Your task to perform on an android device: Open calendar and show me the third week of next month Image 0: 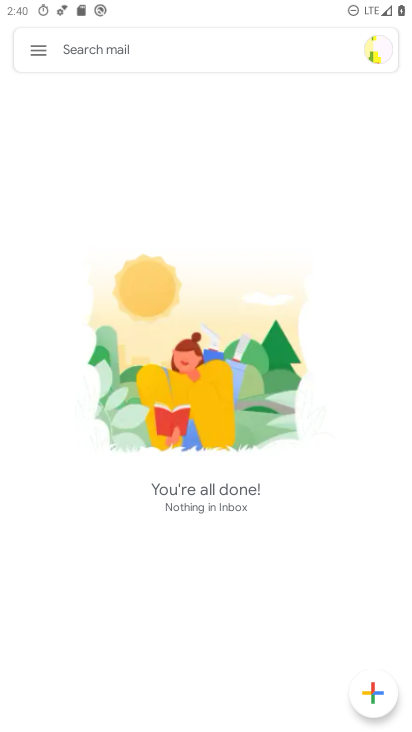
Step 0: click (275, 722)
Your task to perform on an android device: Open calendar and show me the third week of next month Image 1: 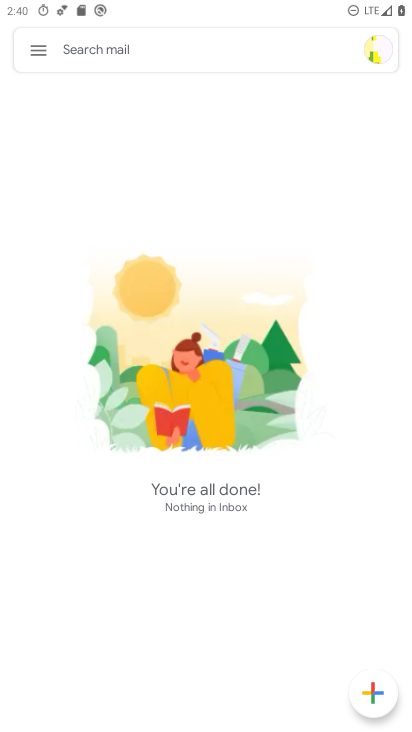
Step 1: drag from (214, 548) to (253, 296)
Your task to perform on an android device: Open calendar and show me the third week of next month Image 2: 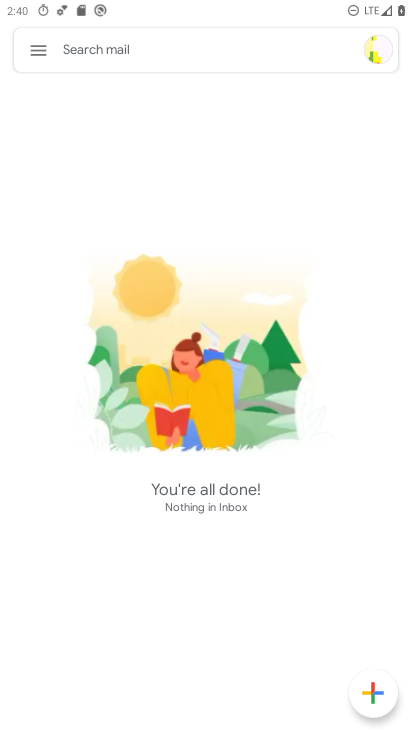
Step 2: press home button
Your task to perform on an android device: Open calendar and show me the third week of next month Image 3: 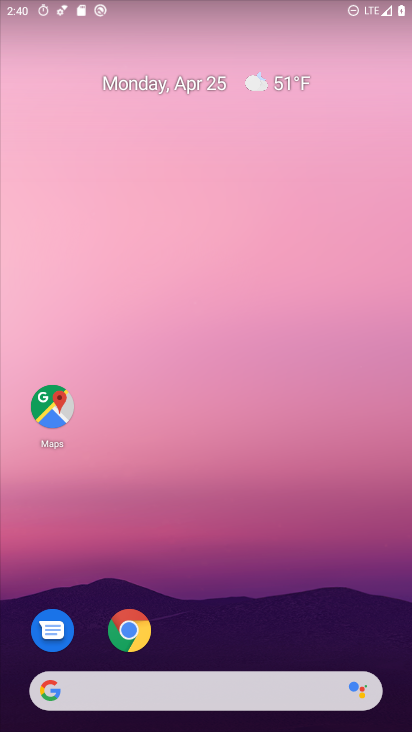
Step 3: drag from (233, 193) to (233, 50)
Your task to perform on an android device: Open calendar and show me the third week of next month Image 4: 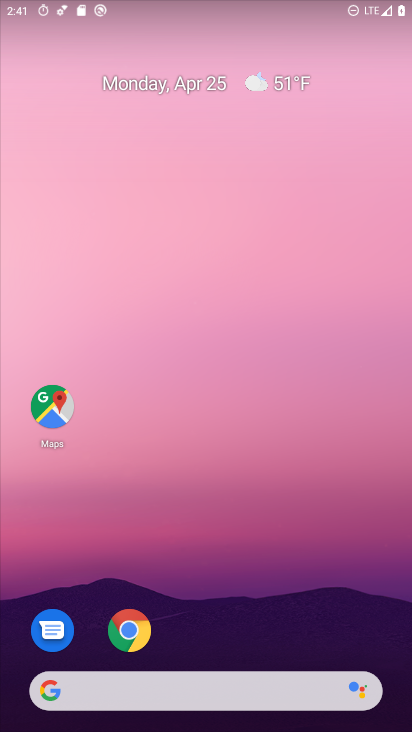
Step 4: drag from (218, 636) to (163, 717)
Your task to perform on an android device: Open calendar and show me the third week of next month Image 5: 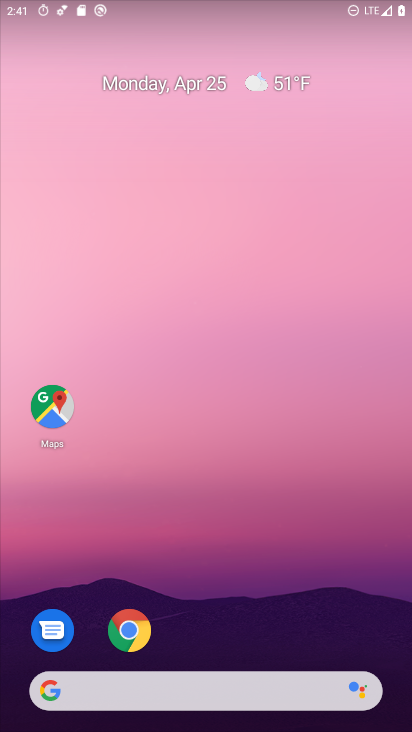
Step 5: drag from (196, 665) to (149, 3)
Your task to perform on an android device: Open calendar and show me the third week of next month Image 6: 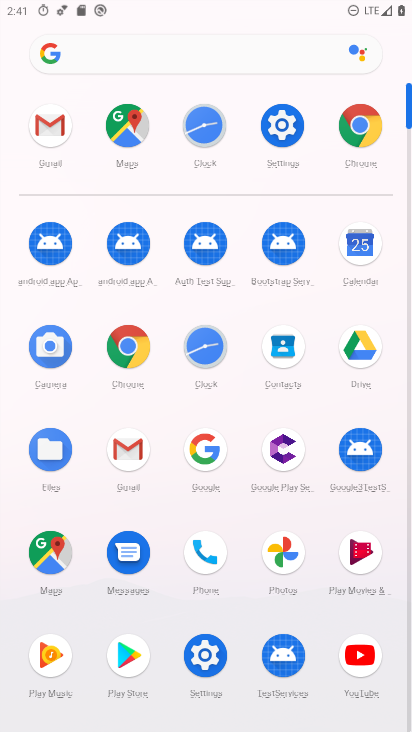
Step 6: click (188, 653)
Your task to perform on an android device: Open calendar and show me the third week of next month Image 7: 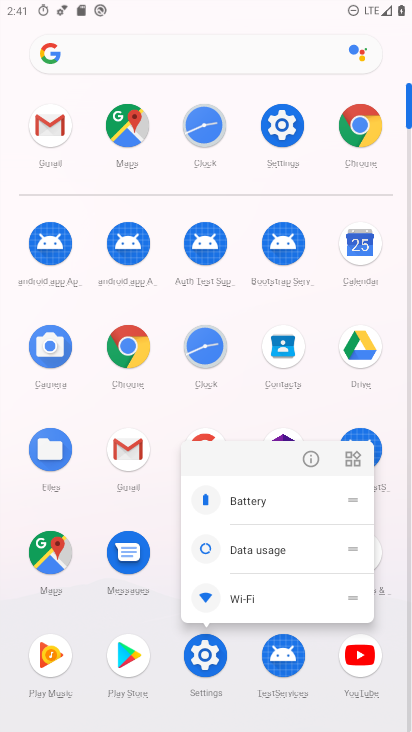
Step 7: click (358, 246)
Your task to perform on an android device: Open calendar and show me the third week of next month Image 8: 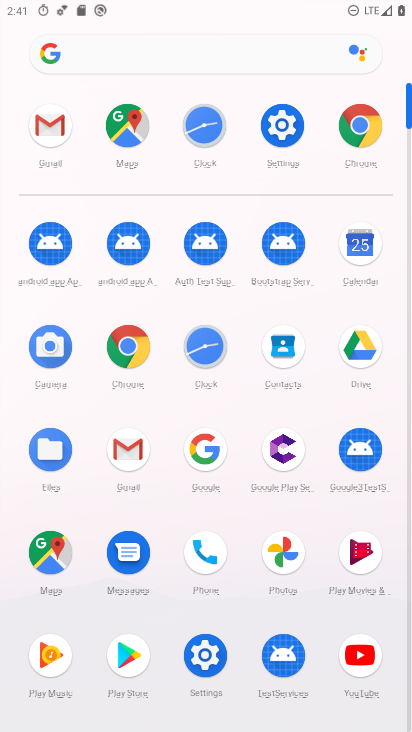
Step 8: click (368, 247)
Your task to perform on an android device: Open calendar and show me the third week of next month Image 9: 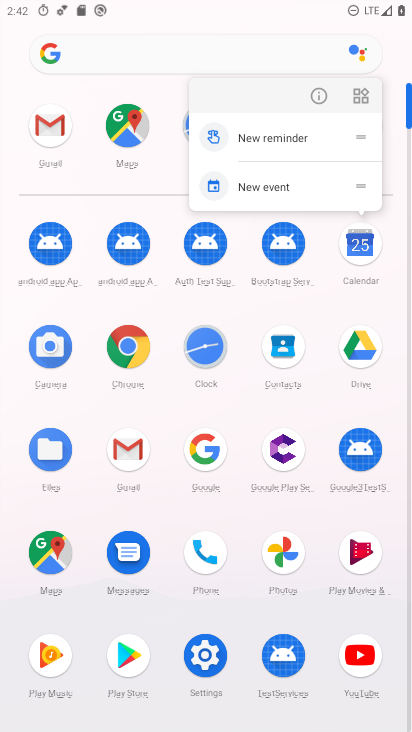
Step 9: click (315, 90)
Your task to perform on an android device: Open calendar and show me the third week of next month Image 10: 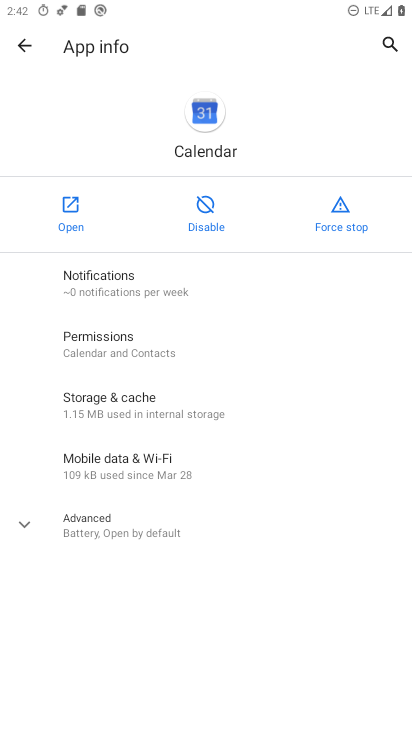
Step 10: click (66, 208)
Your task to perform on an android device: Open calendar and show me the third week of next month Image 11: 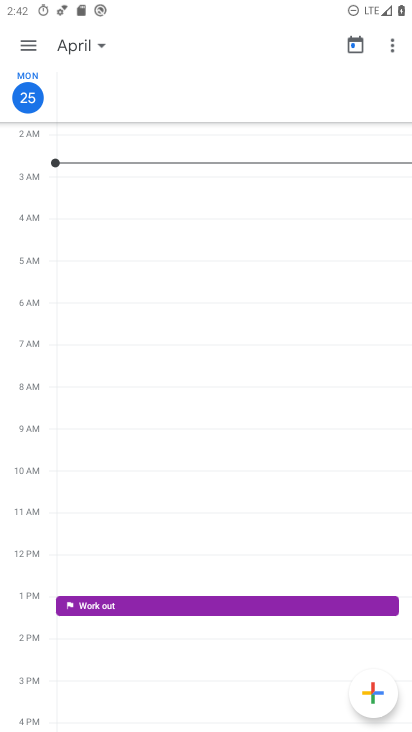
Step 11: click (94, 49)
Your task to perform on an android device: Open calendar and show me the third week of next month Image 12: 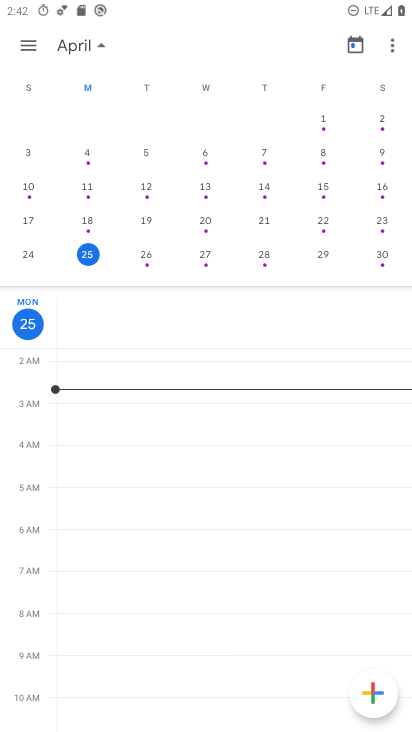
Step 12: drag from (352, 218) to (1, 231)
Your task to perform on an android device: Open calendar and show me the third week of next month Image 13: 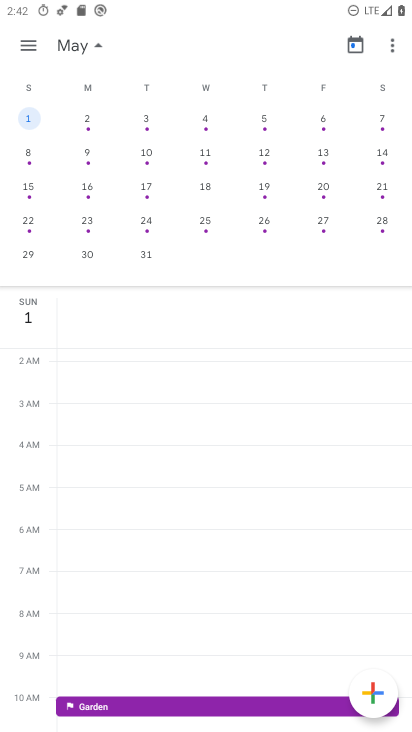
Step 13: click (260, 122)
Your task to perform on an android device: Open calendar and show me the third week of next month Image 14: 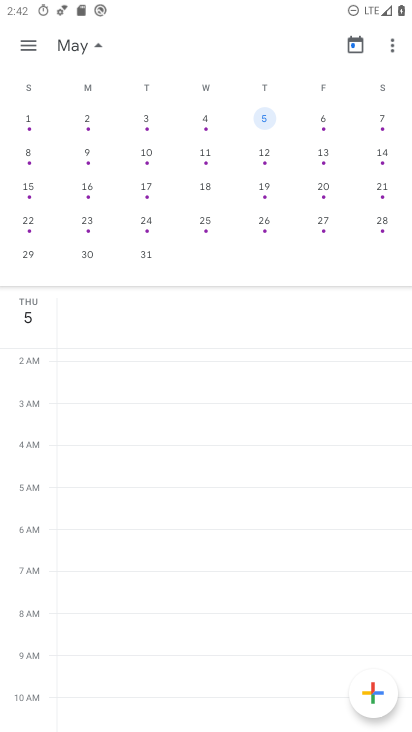
Step 14: click (207, 185)
Your task to perform on an android device: Open calendar and show me the third week of next month Image 15: 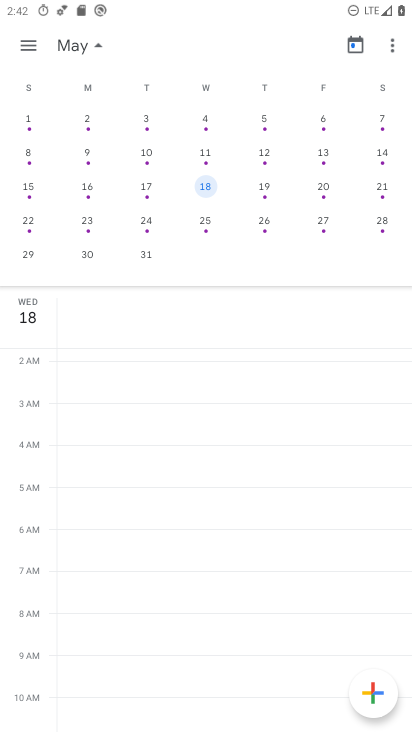
Step 15: click (263, 185)
Your task to perform on an android device: Open calendar and show me the third week of next month Image 16: 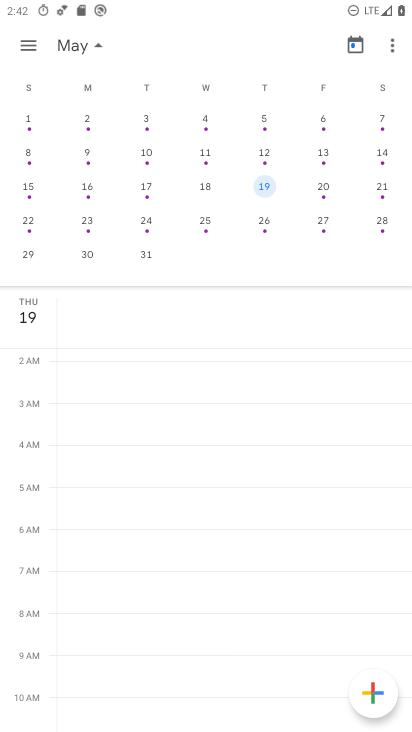
Step 16: task complete